Your task to perform on an android device: Is it going to rain tomorrow? Image 0: 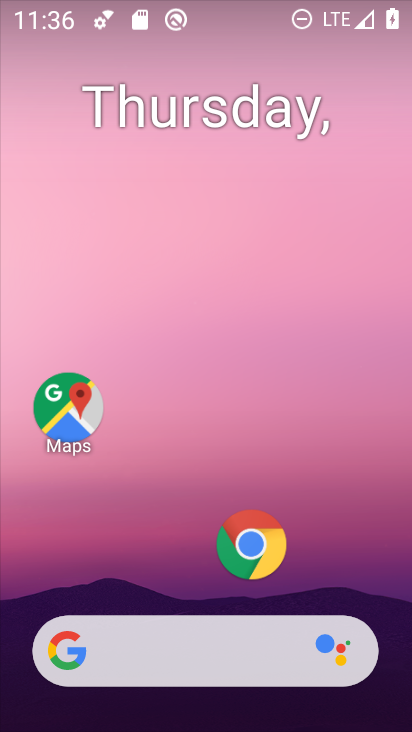
Step 0: click (236, 696)
Your task to perform on an android device: Is it going to rain tomorrow? Image 1: 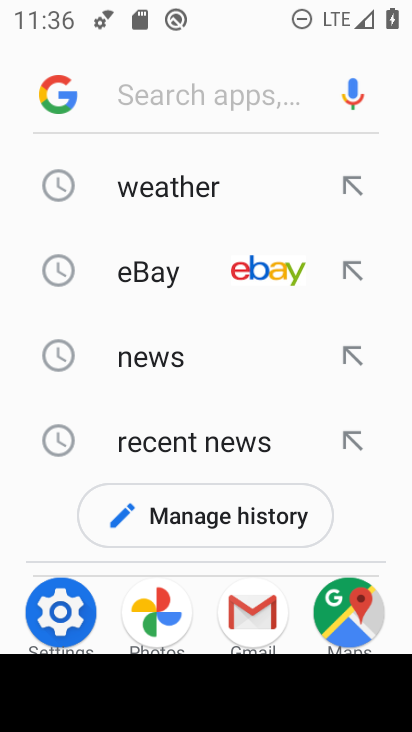
Step 1: click (140, 211)
Your task to perform on an android device: Is it going to rain tomorrow? Image 2: 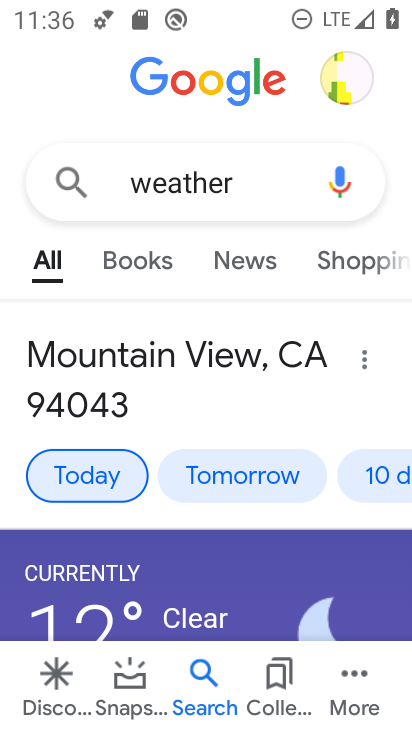
Step 2: click (224, 469)
Your task to perform on an android device: Is it going to rain tomorrow? Image 3: 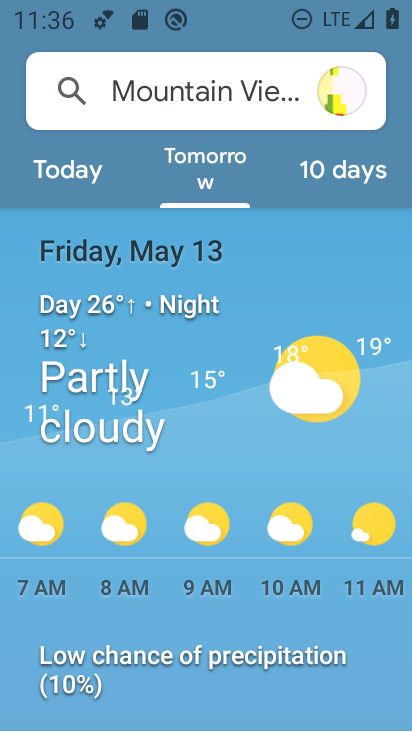
Step 3: task complete